Your task to perform on an android device: empty trash in google photos Image 0: 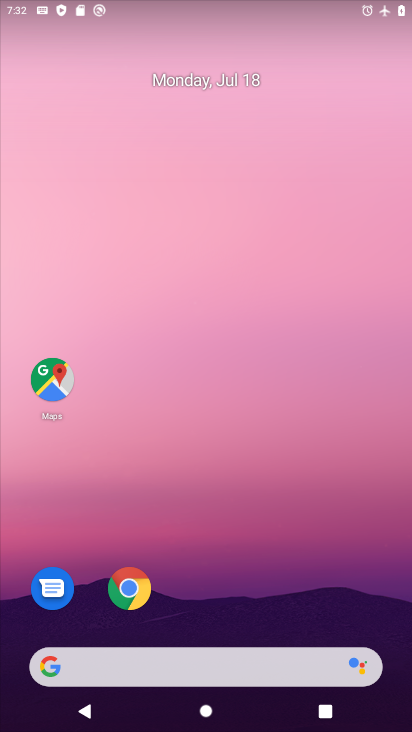
Step 0: drag from (210, 625) to (215, 390)
Your task to perform on an android device: empty trash in google photos Image 1: 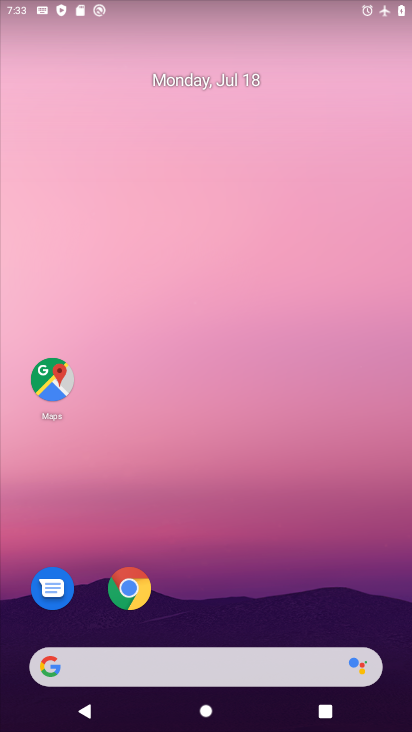
Step 1: drag from (208, 594) to (232, 318)
Your task to perform on an android device: empty trash in google photos Image 2: 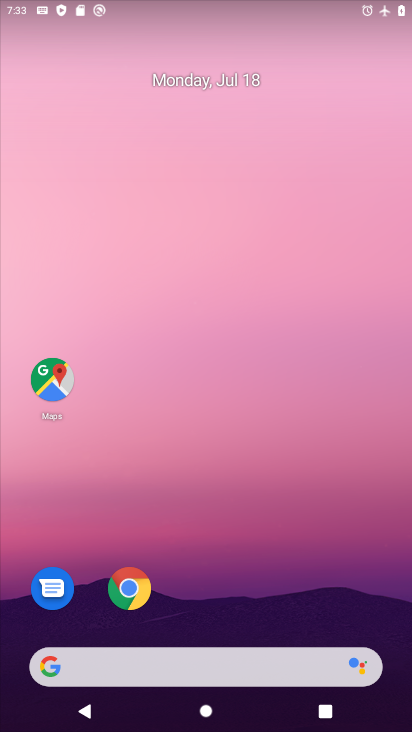
Step 2: drag from (188, 596) to (202, 254)
Your task to perform on an android device: empty trash in google photos Image 3: 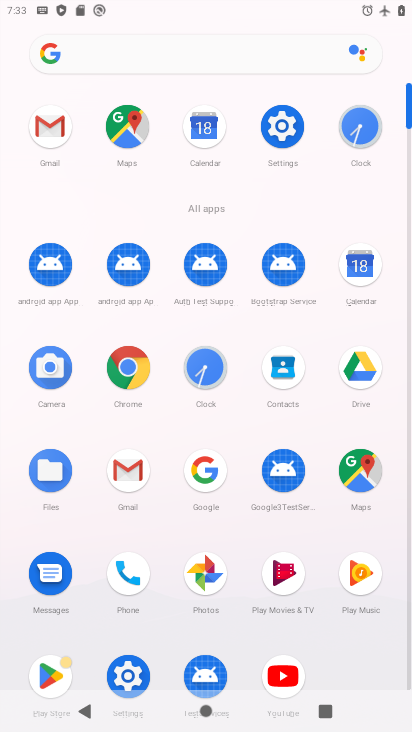
Step 3: click (198, 567)
Your task to perform on an android device: empty trash in google photos Image 4: 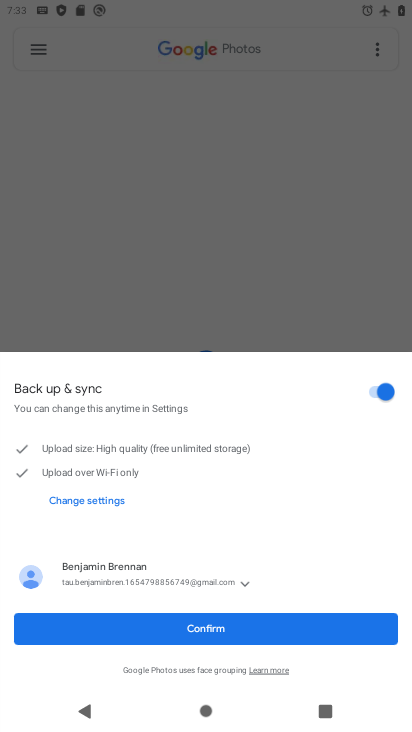
Step 4: click (210, 625)
Your task to perform on an android device: empty trash in google photos Image 5: 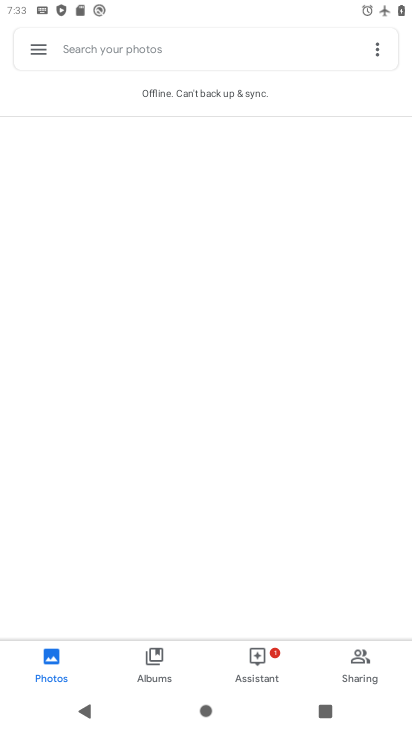
Step 5: click (48, 46)
Your task to perform on an android device: empty trash in google photos Image 6: 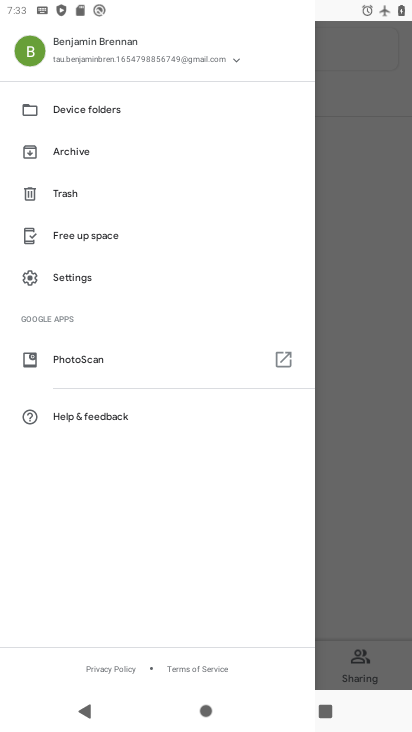
Step 6: click (71, 203)
Your task to perform on an android device: empty trash in google photos Image 7: 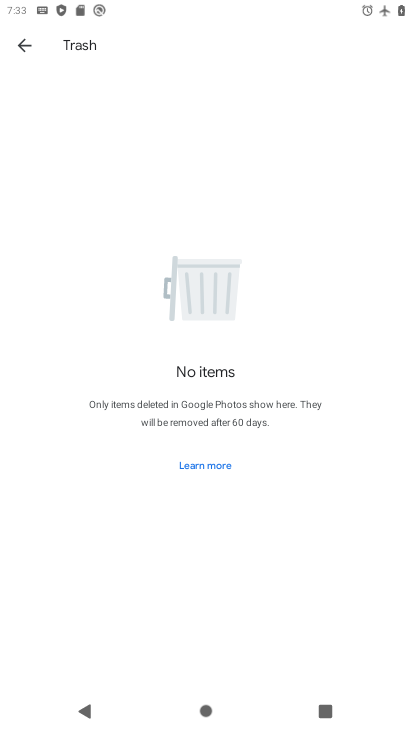
Step 7: task complete